Your task to perform on an android device: allow cookies in the chrome app Image 0: 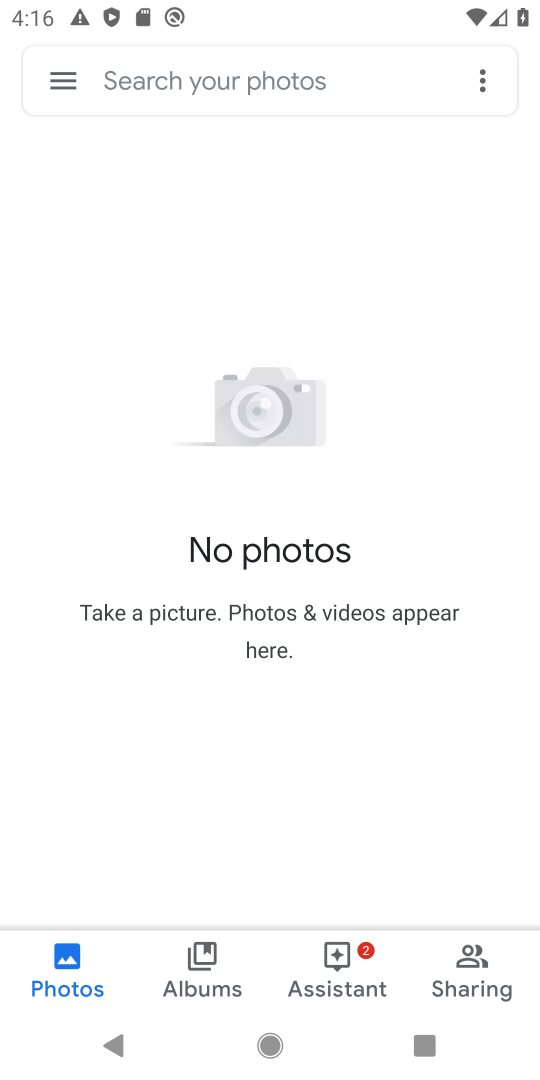
Step 0: press home button
Your task to perform on an android device: allow cookies in the chrome app Image 1: 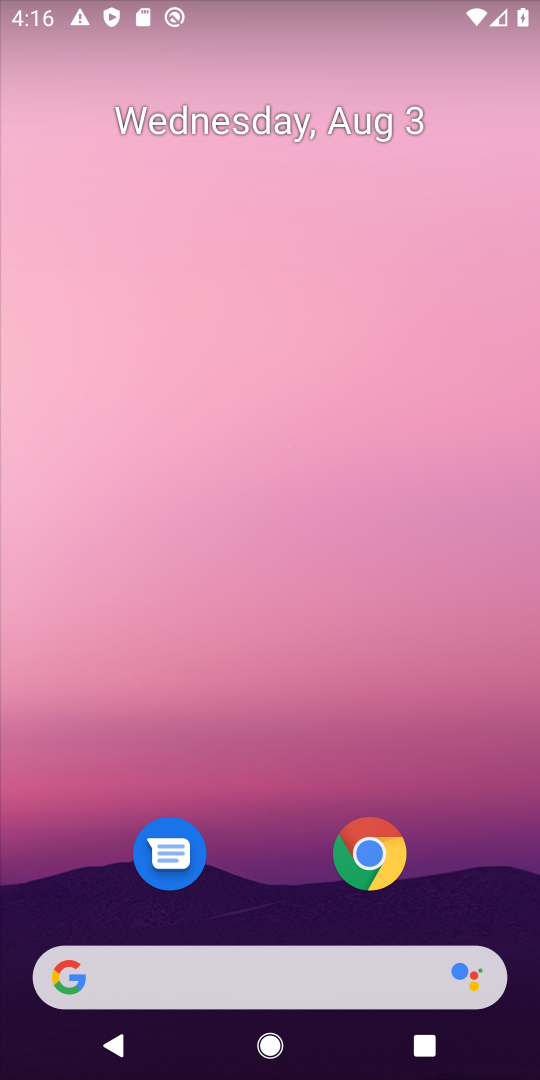
Step 1: click (372, 854)
Your task to perform on an android device: allow cookies in the chrome app Image 2: 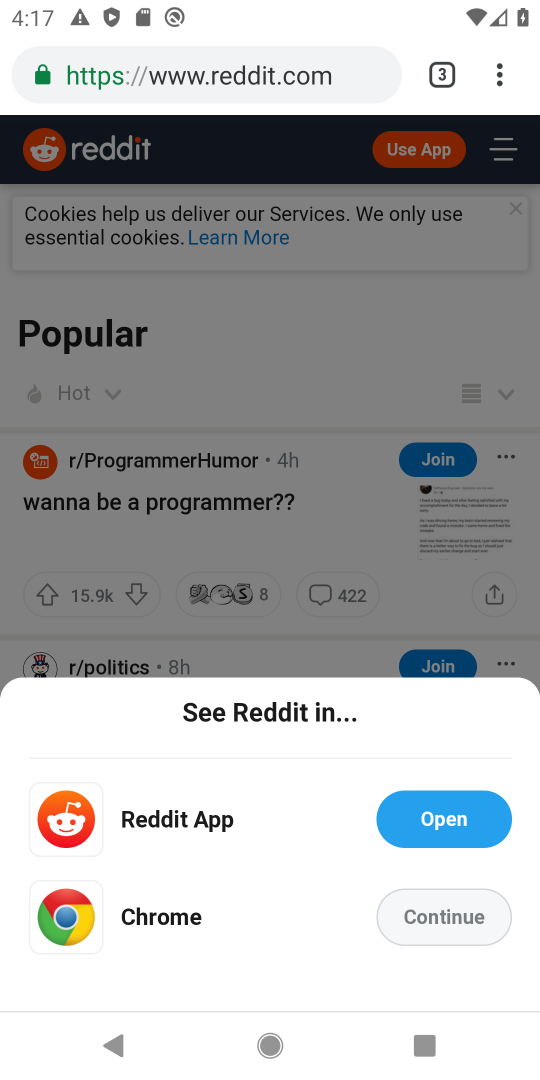
Step 2: click (499, 86)
Your task to perform on an android device: allow cookies in the chrome app Image 3: 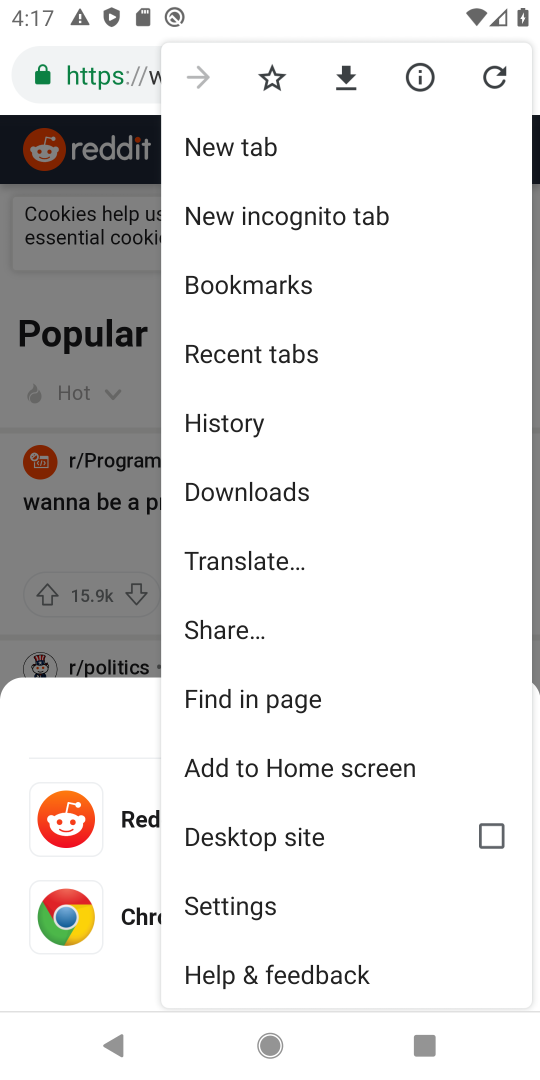
Step 3: click (221, 901)
Your task to perform on an android device: allow cookies in the chrome app Image 4: 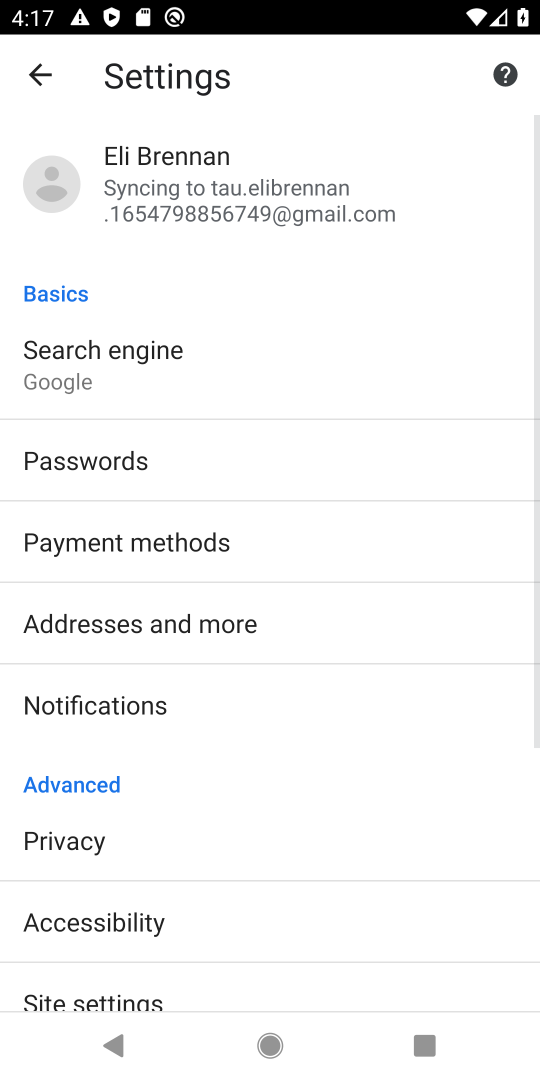
Step 4: drag from (124, 955) to (127, 377)
Your task to perform on an android device: allow cookies in the chrome app Image 5: 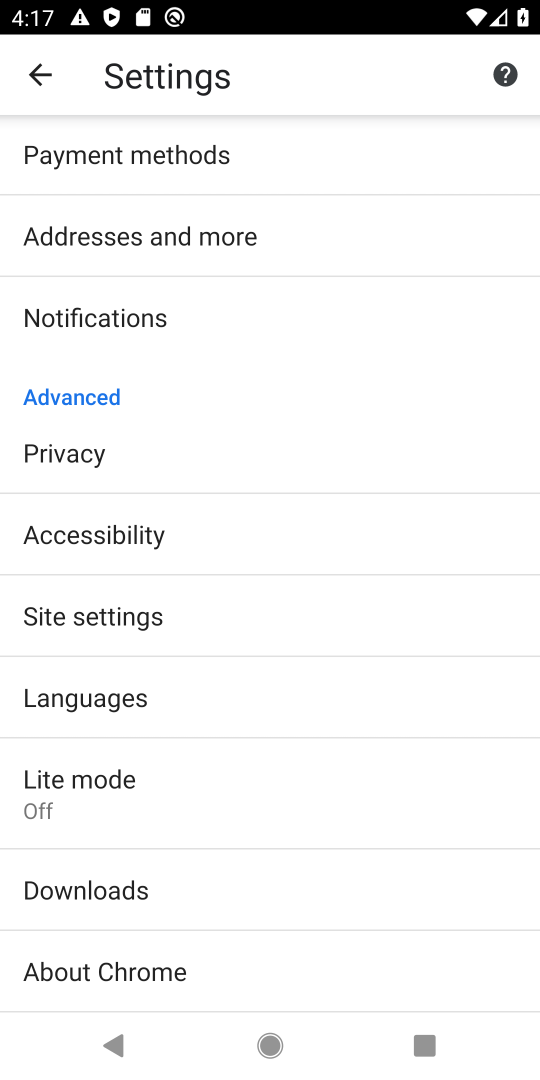
Step 5: drag from (82, 862) to (77, 511)
Your task to perform on an android device: allow cookies in the chrome app Image 6: 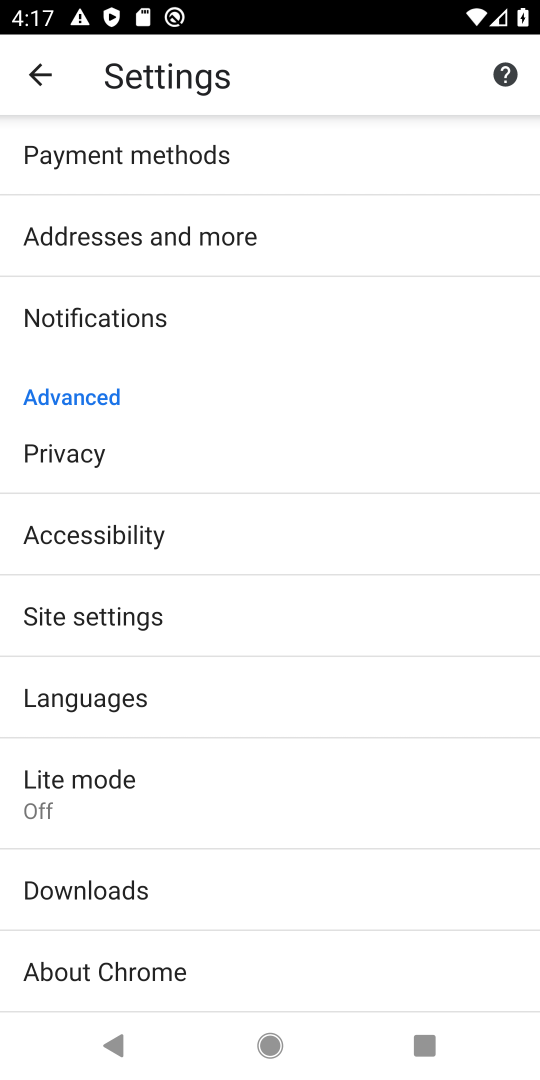
Step 6: click (96, 612)
Your task to perform on an android device: allow cookies in the chrome app Image 7: 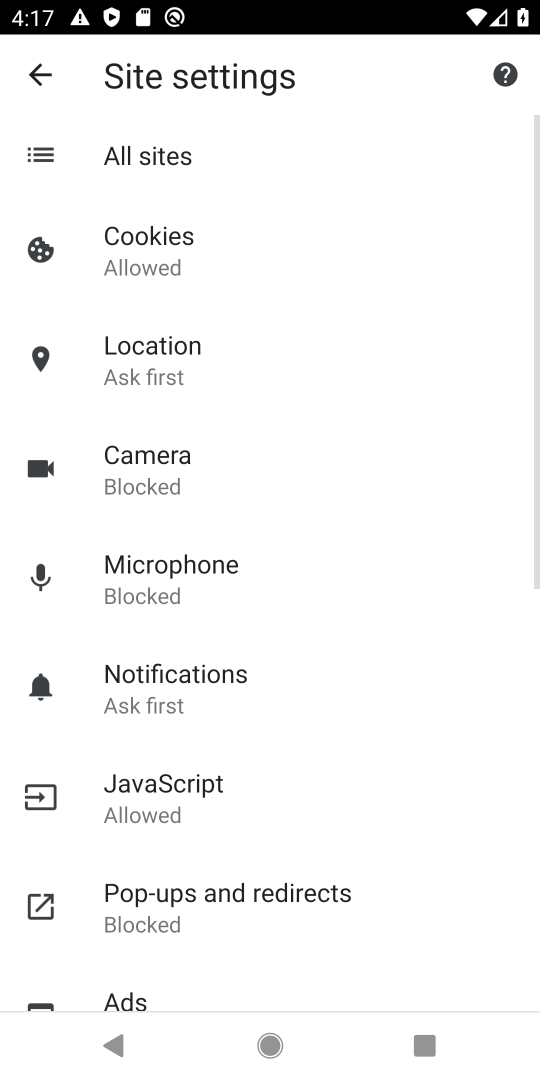
Step 7: click (146, 251)
Your task to perform on an android device: allow cookies in the chrome app Image 8: 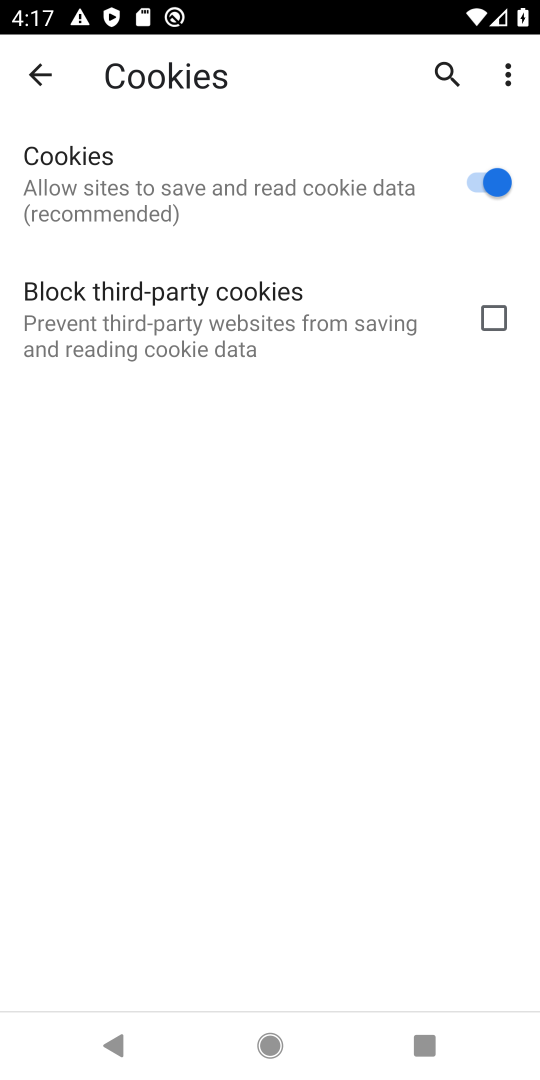
Step 8: task complete